Your task to perform on an android device: install app "Google Keep" Image 0: 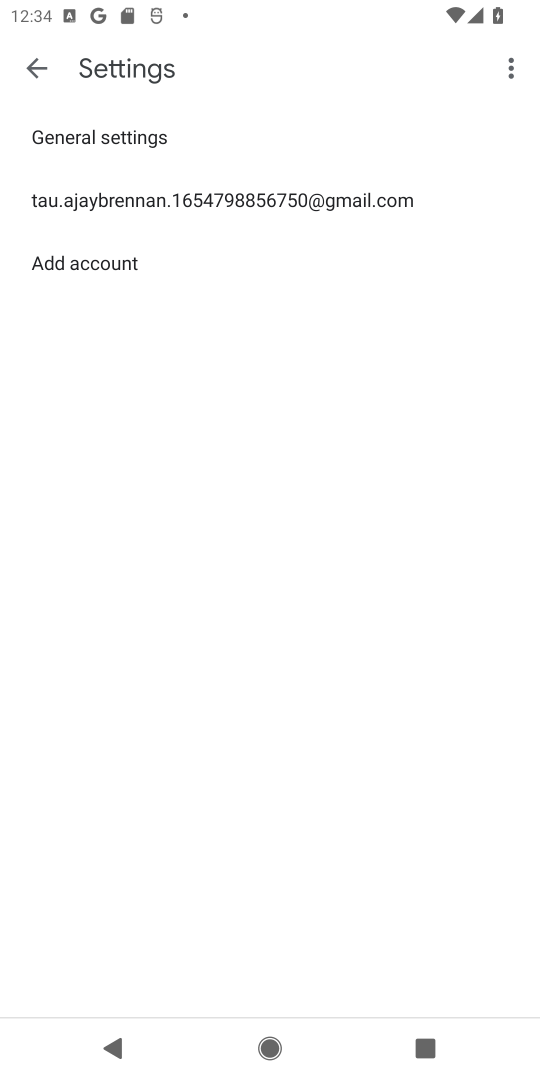
Step 0: press home button
Your task to perform on an android device: install app "Google Keep" Image 1: 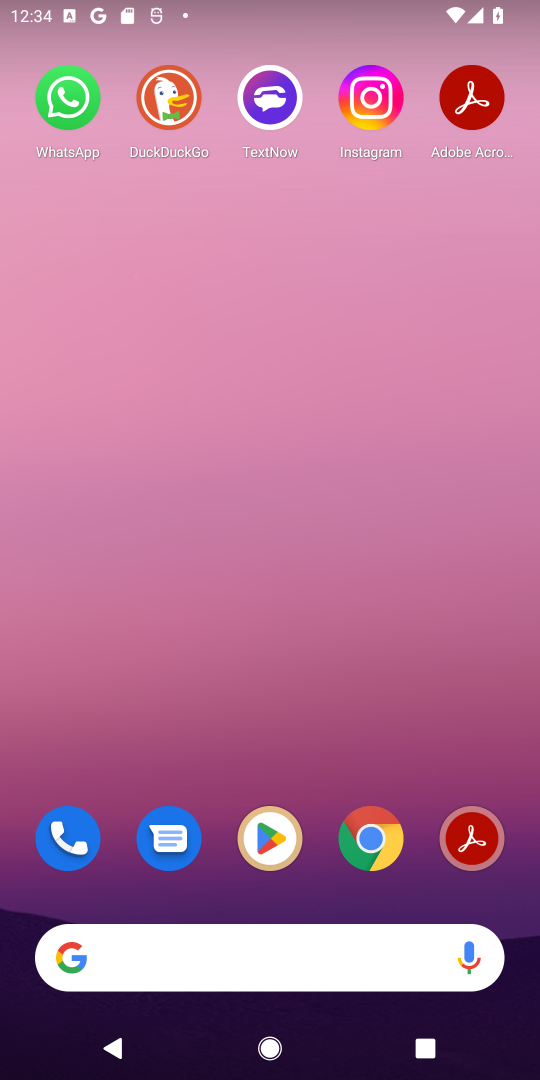
Step 1: click (276, 819)
Your task to perform on an android device: install app "Google Keep" Image 2: 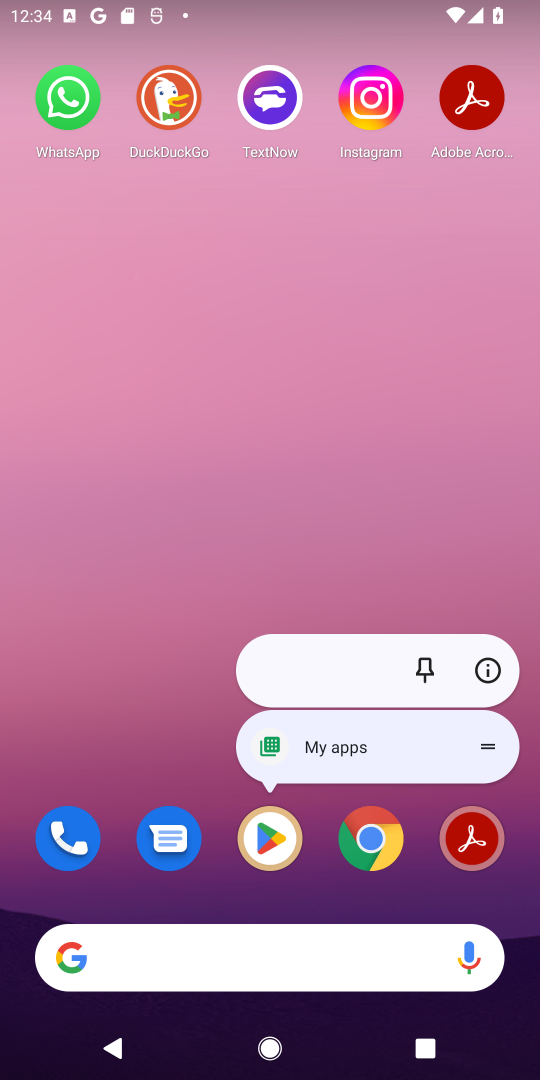
Step 2: click (266, 838)
Your task to perform on an android device: install app "Google Keep" Image 3: 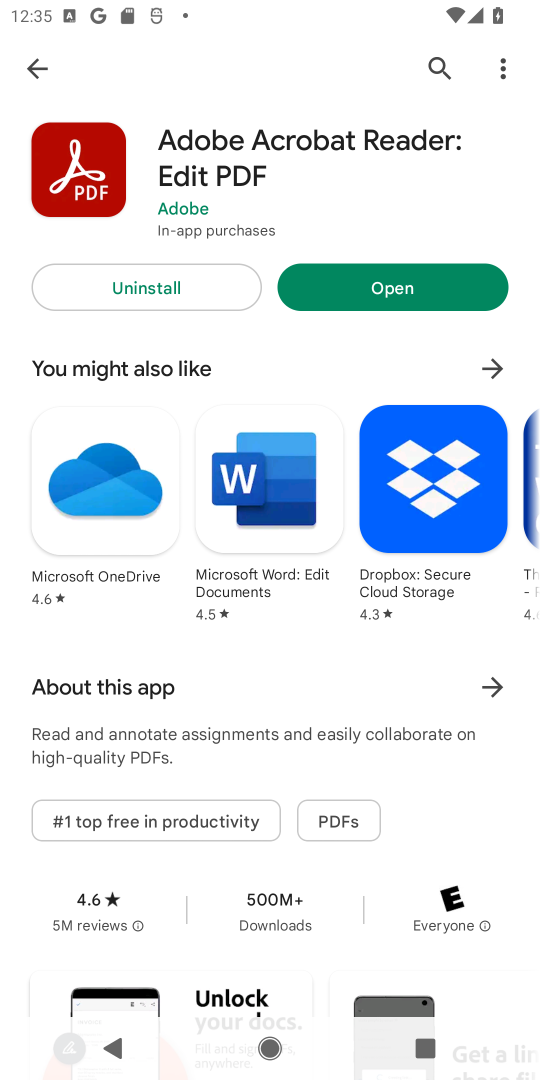
Step 3: click (444, 56)
Your task to perform on an android device: install app "Google Keep" Image 4: 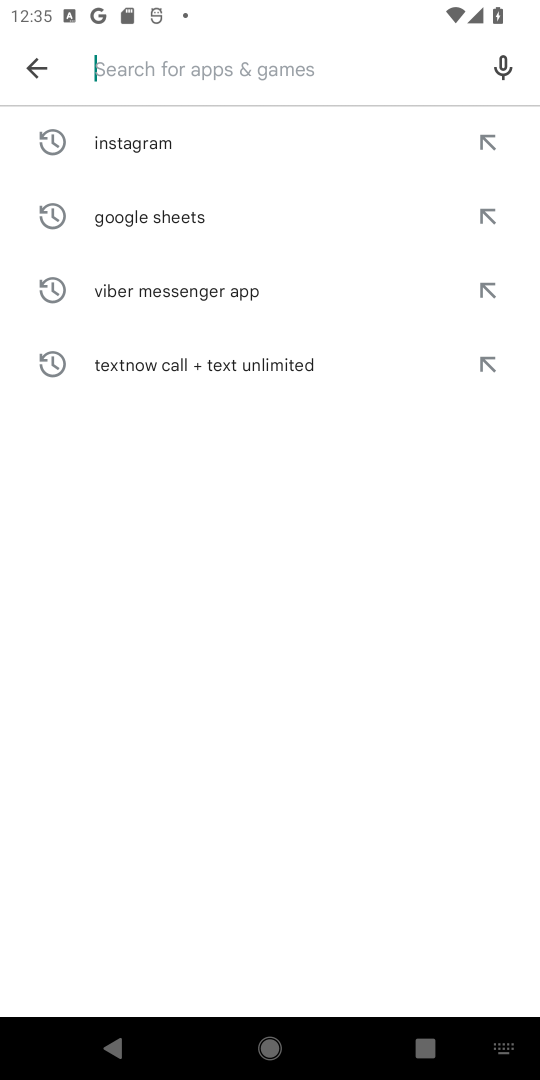
Step 4: type "Google Keep"
Your task to perform on an android device: install app "Google Keep" Image 5: 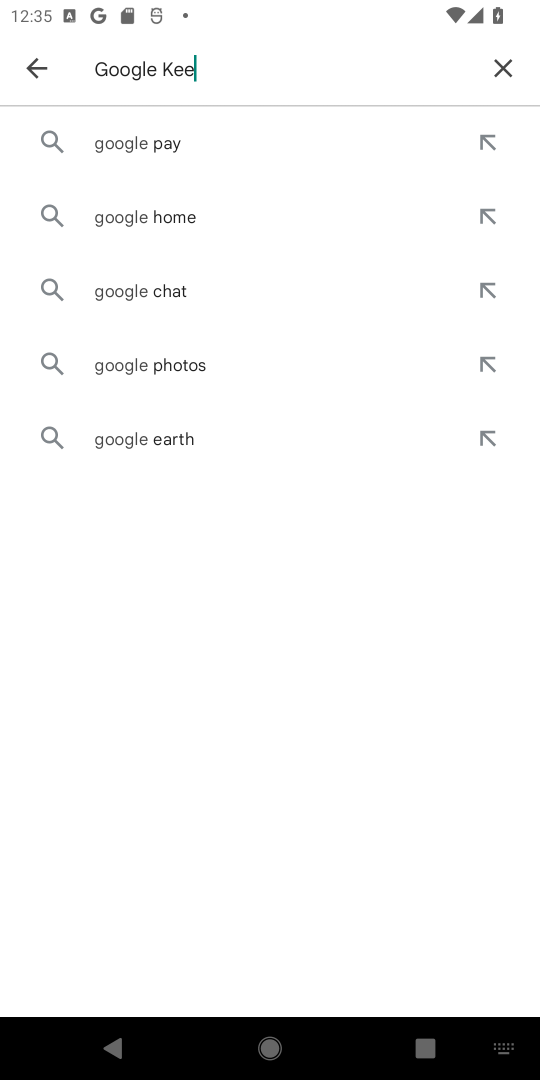
Step 5: type ""
Your task to perform on an android device: install app "Google Keep" Image 6: 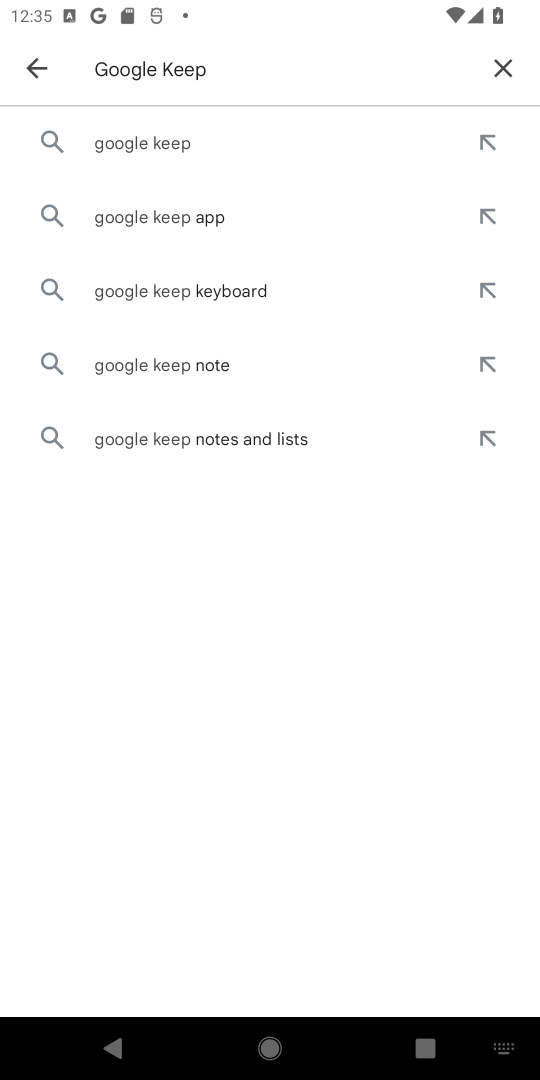
Step 6: click (140, 141)
Your task to perform on an android device: install app "Google Keep" Image 7: 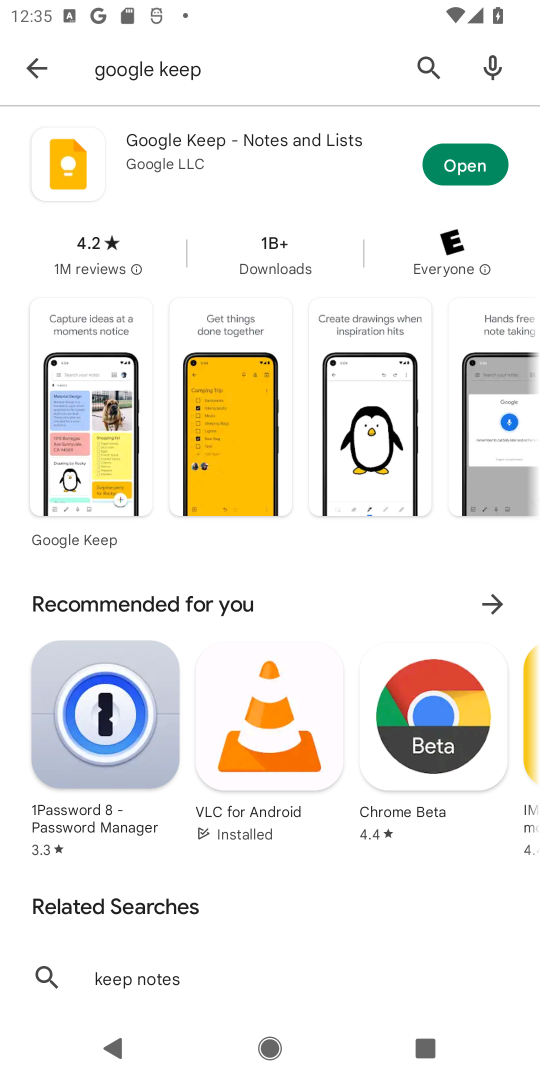
Step 7: task complete